Your task to perform on an android device: What's the weather going to be this weekend? Image 0: 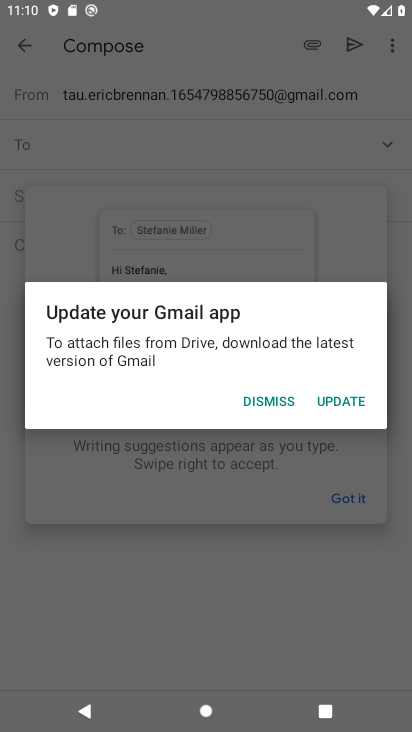
Step 0: press home button
Your task to perform on an android device: What's the weather going to be this weekend? Image 1: 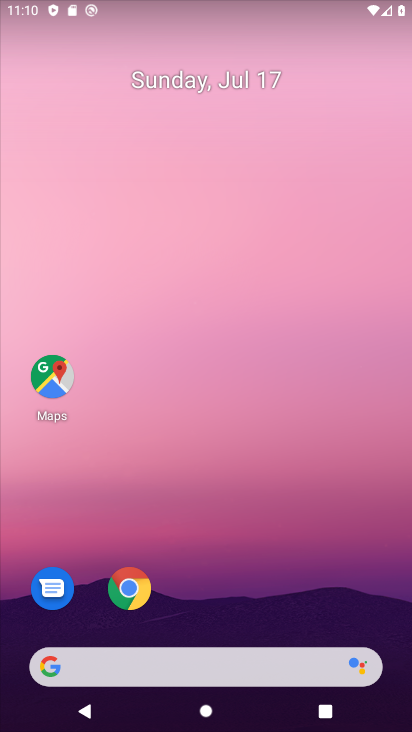
Step 1: drag from (193, 661) to (178, 229)
Your task to perform on an android device: What's the weather going to be this weekend? Image 2: 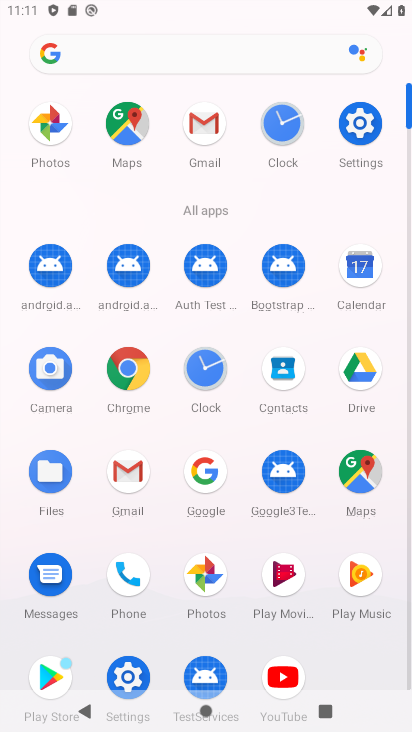
Step 2: click (204, 477)
Your task to perform on an android device: What's the weather going to be this weekend? Image 3: 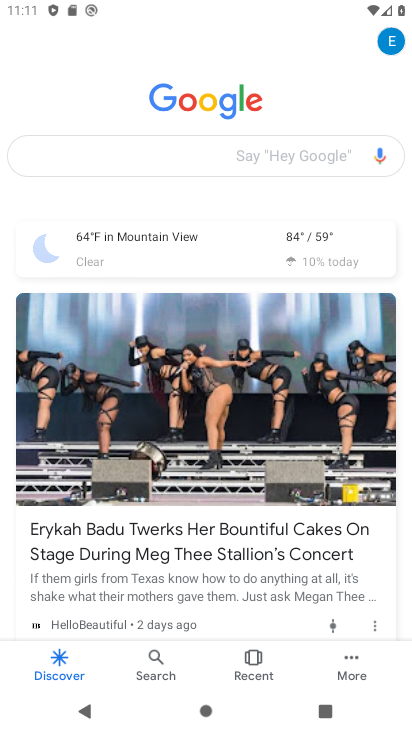
Step 3: click (38, 244)
Your task to perform on an android device: What's the weather going to be this weekend? Image 4: 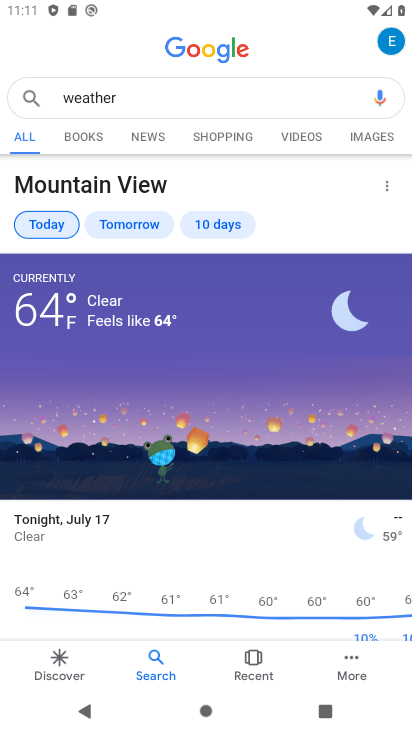
Step 4: click (216, 238)
Your task to perform on an android device: What's the weather going to be this weekend? Image 5: 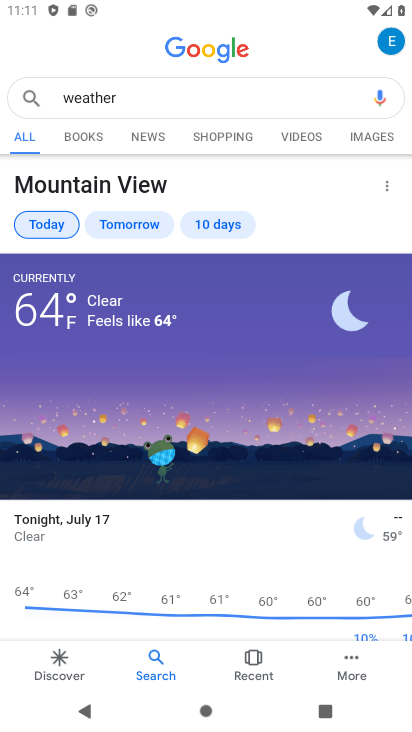
Step 5: click (207, 226)
Your task to perform on an android device: What's the weather going to be this weekend? Image 6: 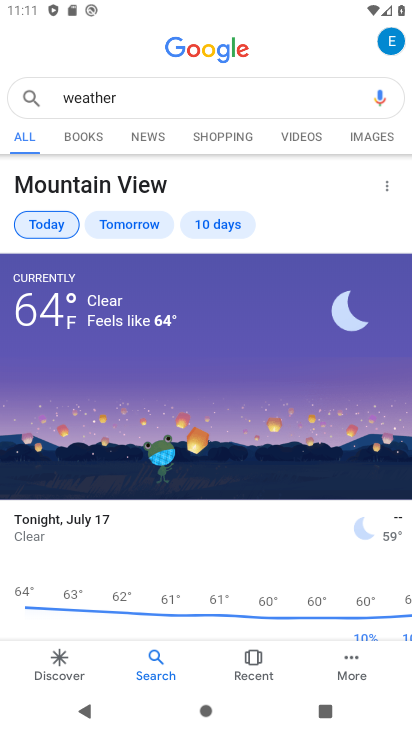
Step 6: click (207, 226)
Your task to perform on an android device: What's the weather going to be this weekend? Image 7: 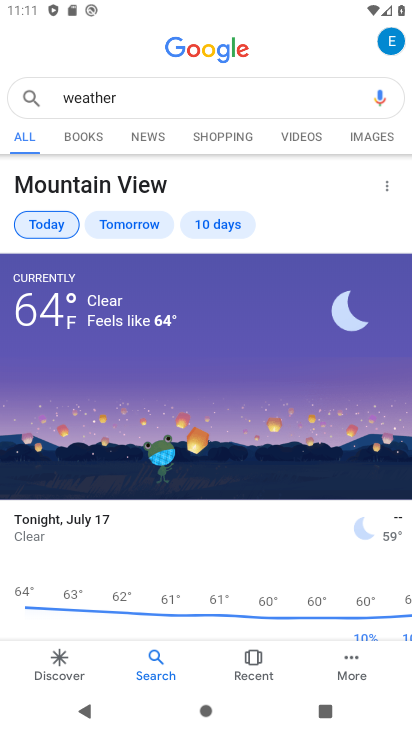
Step 7: click (207, 226)
Your task to perform on an android device: What's the weather going to be this weekend? Image 8: 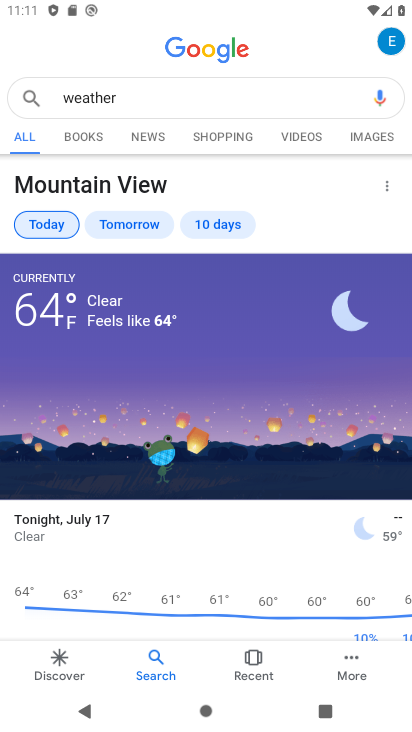
Step 8: click (158, 101)
Your task to perform on an android device: What's the weather going to be this weekend? Image 9: 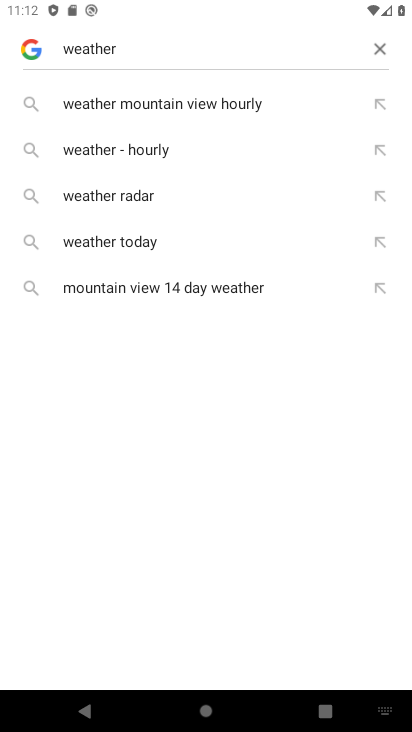
Step 9: type " weekend"
Your task to perform on an android device: What's the weather going to be this weekend? Image 10: 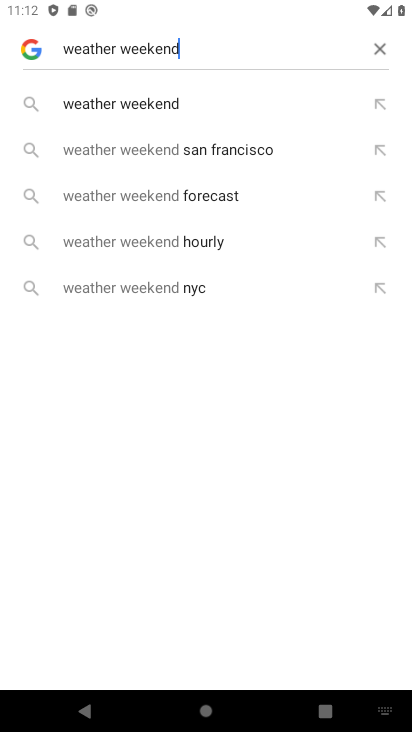
Step 10: click (199, 115)
Your task to perform on an android device: What's the weather going to be this weekend? Image 11: 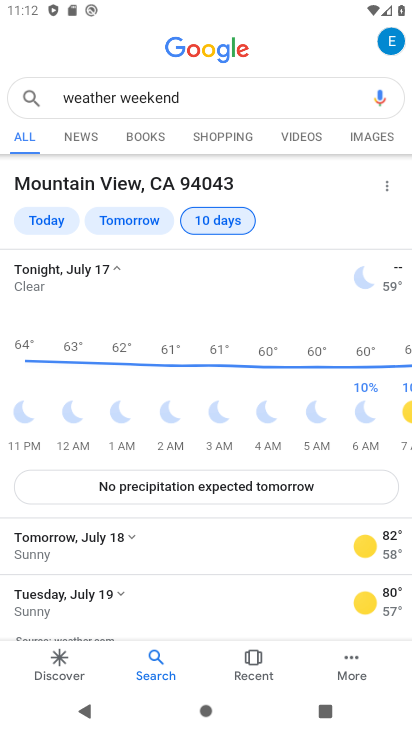
Step 11: task complete